Your task to perform on an android device: visit the assistant section in the google photos Image 0: 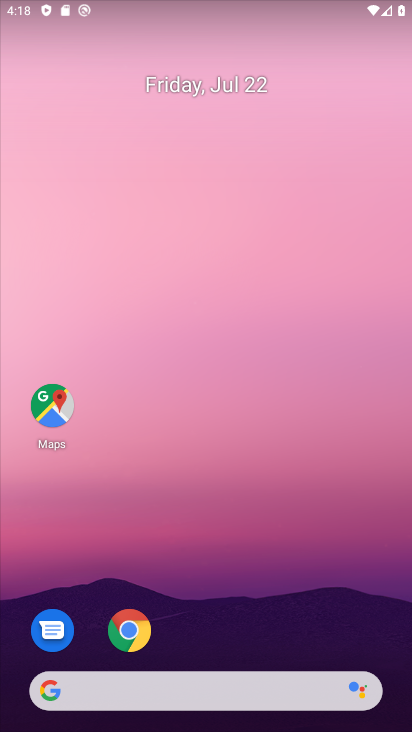
Step 0: drag from (181, 524) to (180, 209)
Your task to perform on an android device: visit the assistant section in the google photos Image 1: 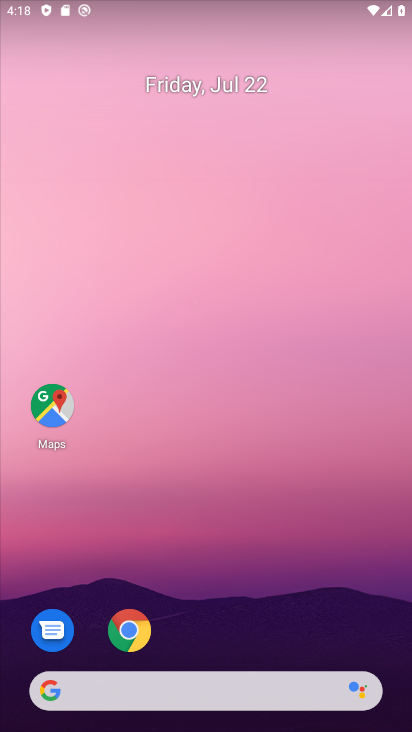
Step 1: drag from (213, 585) to (212, 204)
Your task to perform on an android device: visit the assistant section in the google photos Image 2: 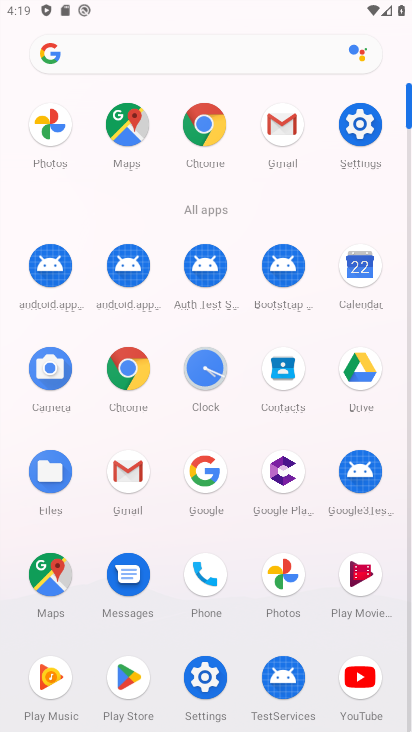
Step 2: click (281, 578)
Your task to perform on an android device: visit the assistant section in the google photos Image 3: 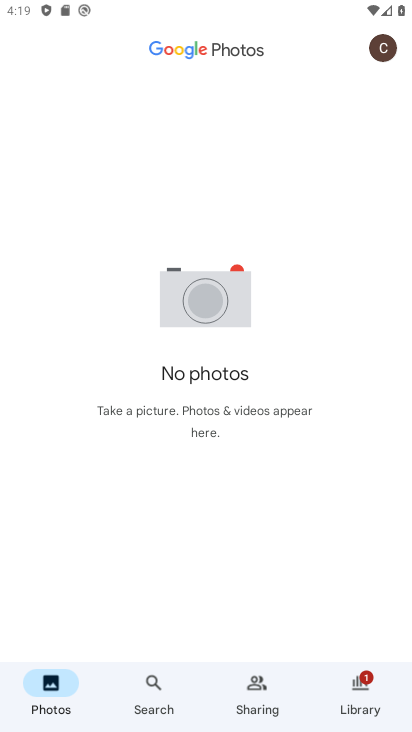
Step 3: click (358, 700)
Your task to perform on an android device: visit the assistant section in the google photos Image 4: 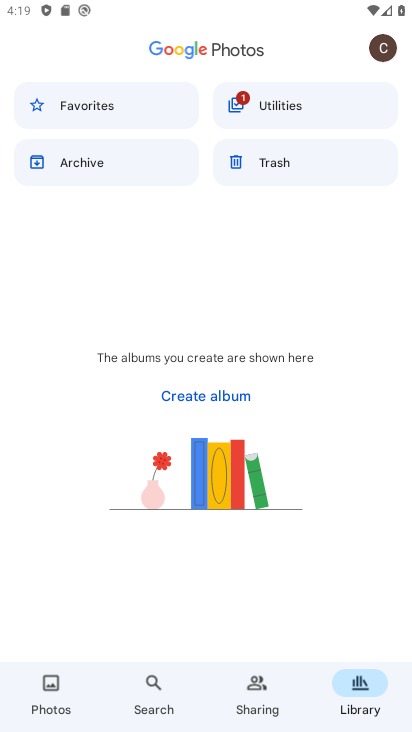
Step 4: task complete